Your task to perform on an android device: install app "DuckDuckGo Privacy Browser" Image 0: 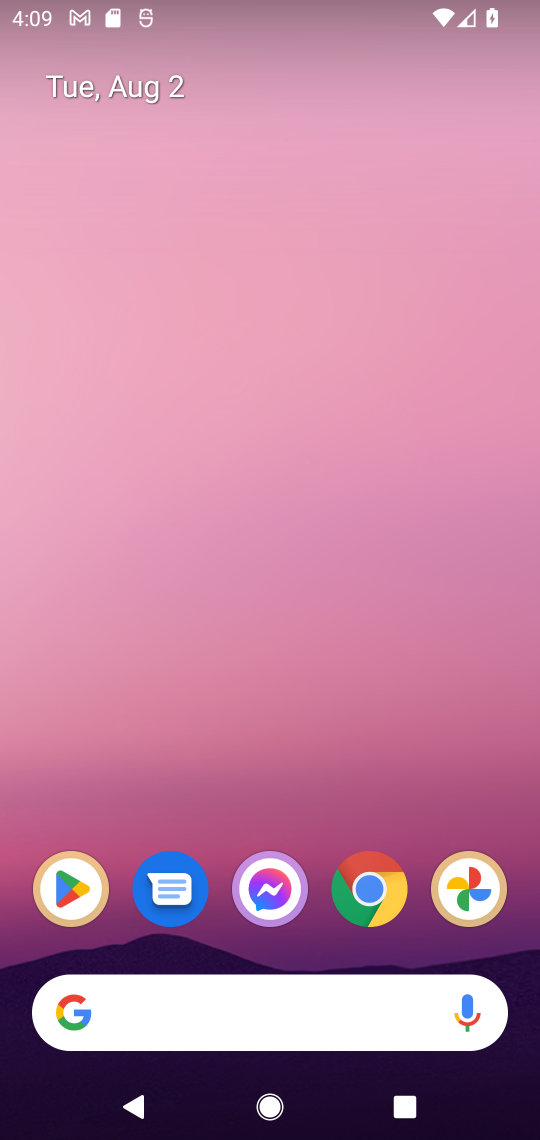
Step 0: press home button
Your task to perform on an android device: install app "DuckDuckGo Privacy Browser" Image 1: 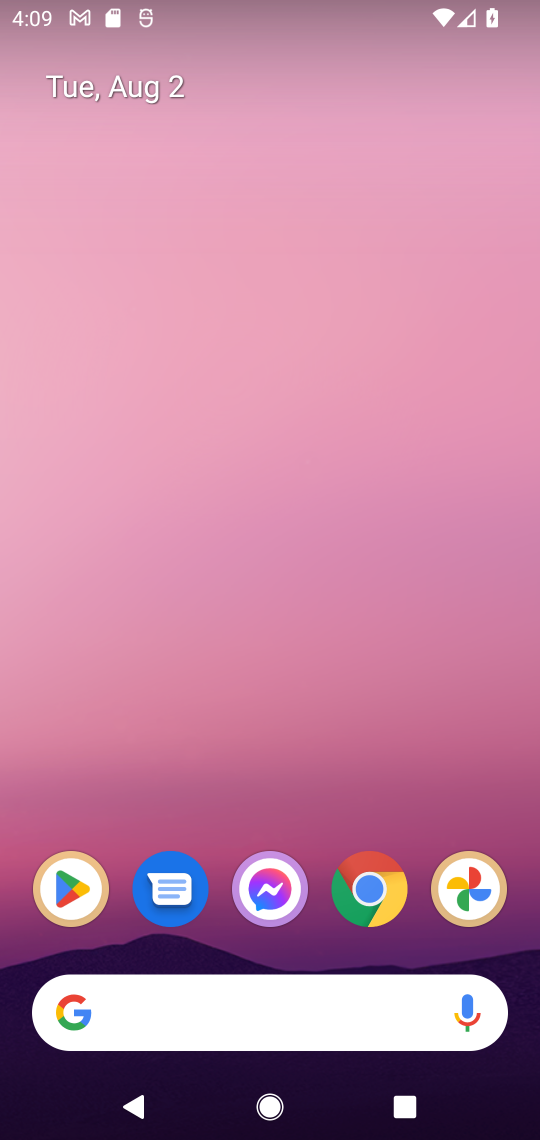
Step 1: drag from (424, 801) to (431, 126)
Your task to perform on an android device: install app "DuckDuckGo Privacy Browser" Image 2: 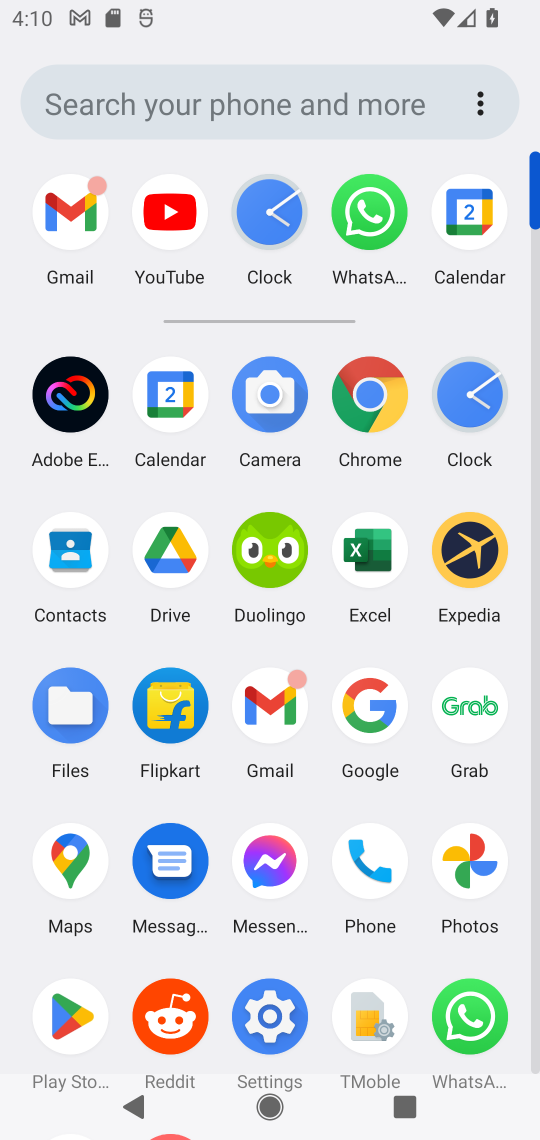
Step 2: click (66, 1015)
Your task to perform on an android device: install app "DuckDuckGo Privacy Browser" Image 3: 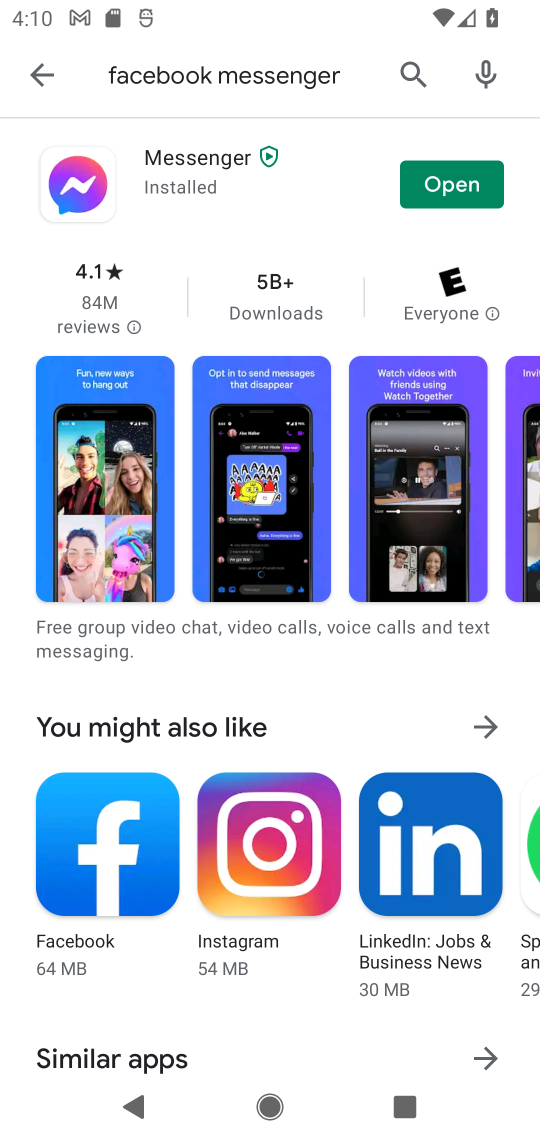
Step 3: click (408, 70)
Your task to perform on an android device: install app "DuckDuckGo Privacy Browser" Image 4: 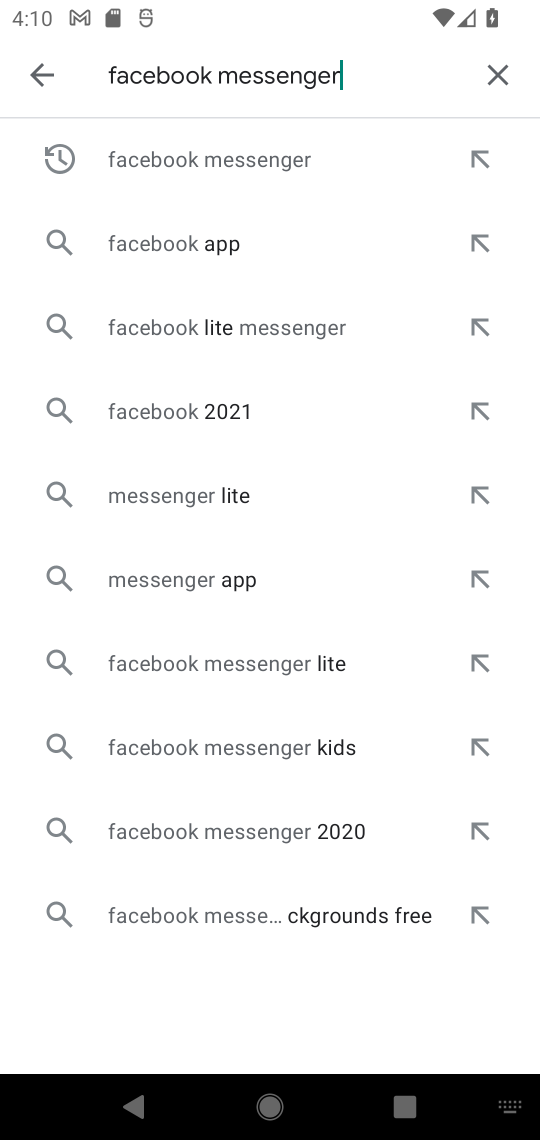
Step 4: click (486, 69)
Your task to perform on an android device: install app "DuckDuckGo Privacy Browser" Image 5: 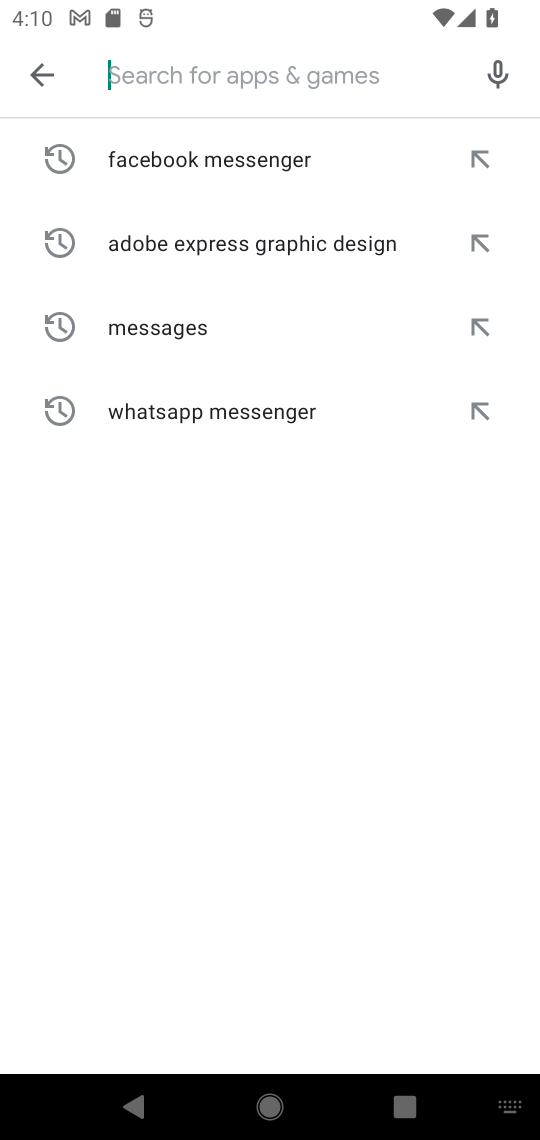
Step 5: type "DuckDuckGo Privacy Browser"
Your task to perform on an android device: install app "DuckDuckGo Privacy Browser" Image 6: 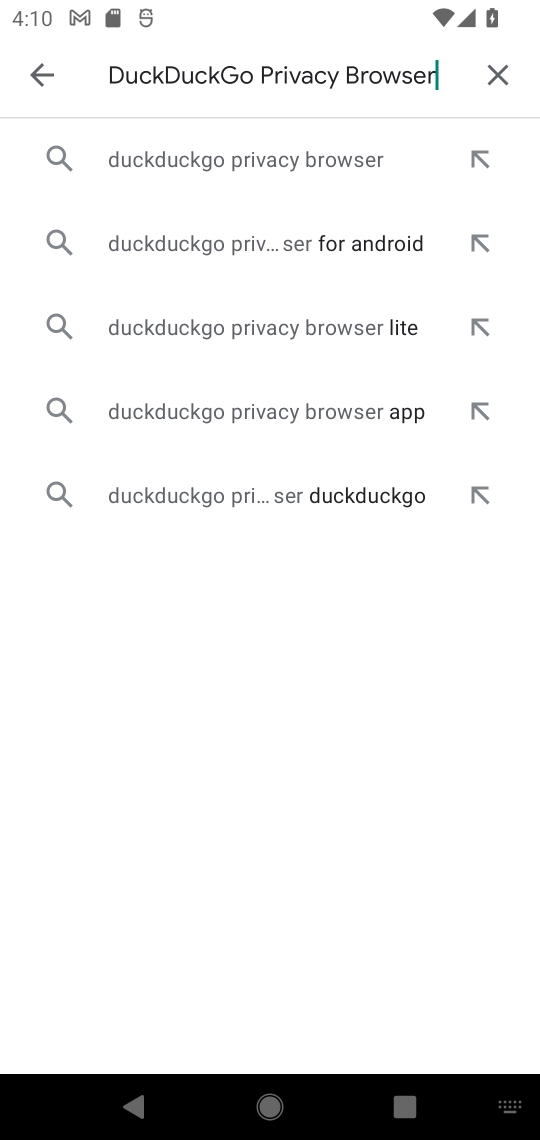
Step 6: click (327, 156)
Your task to perform on an android device: install app "DuckDuckGo Privacy Browser" Image 7: 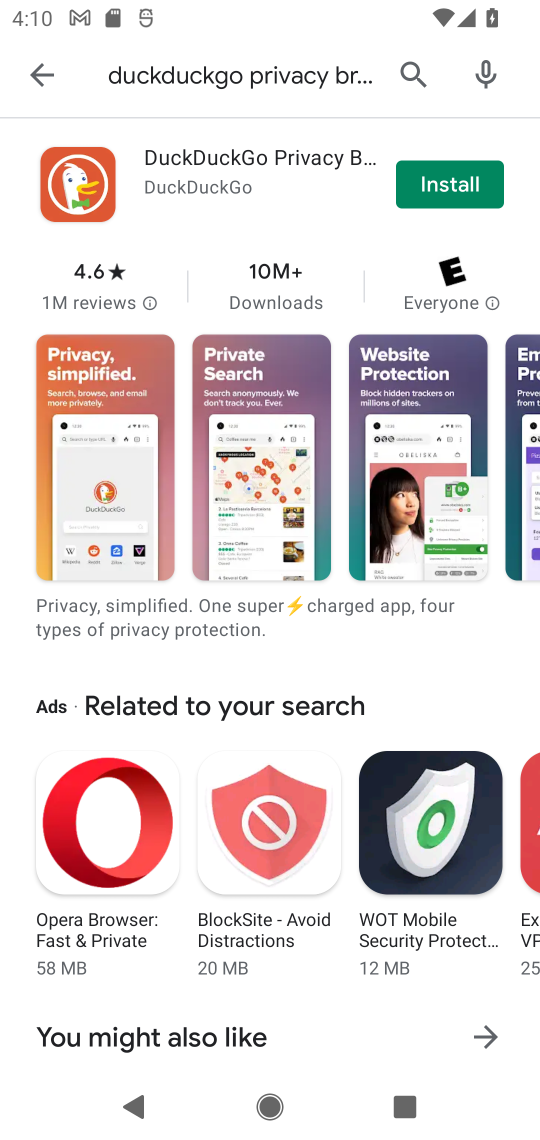
Step 7: click (459, 188)
Your task to perform on an android device: install app "DuckDuckGo Privacy Browser" Image 8: 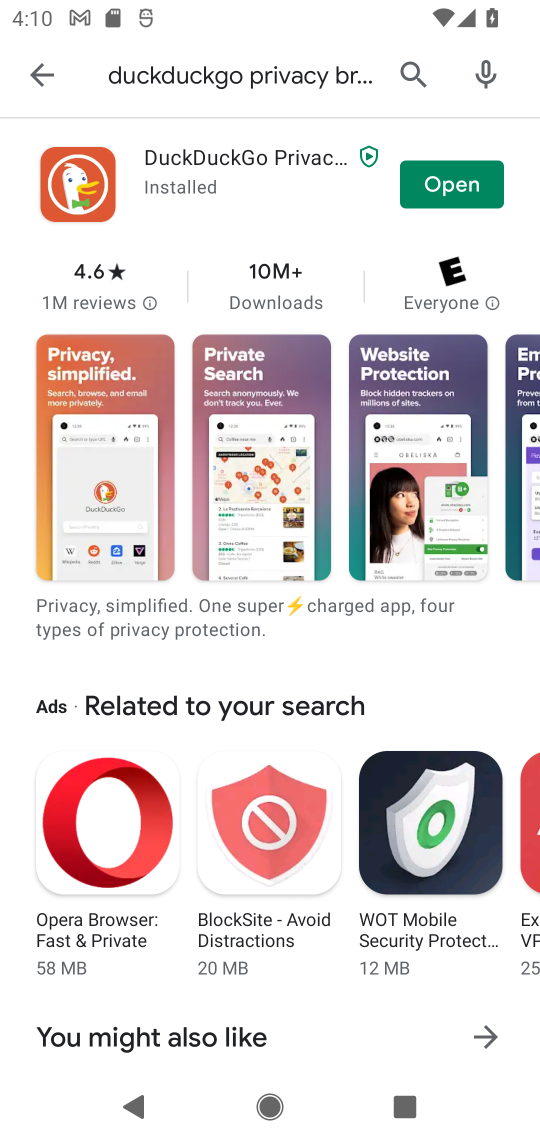
Step 8: task complete